Your task to perform on an android device: add a contact in the contacts app Image 0: 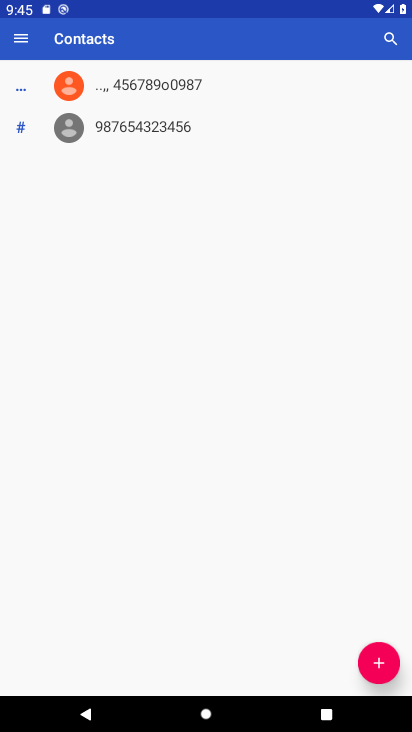
Step 0: press home button
Your task to perform on an android device: add a contact in the contacts app Image 1: 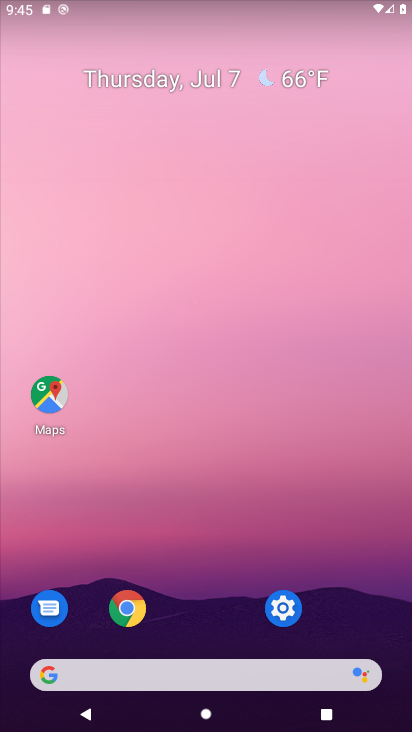
Step 1: drag from (226, 671) to (191, 90)
Your task to perform on an android device: add a contact in the contacts app Image 2: 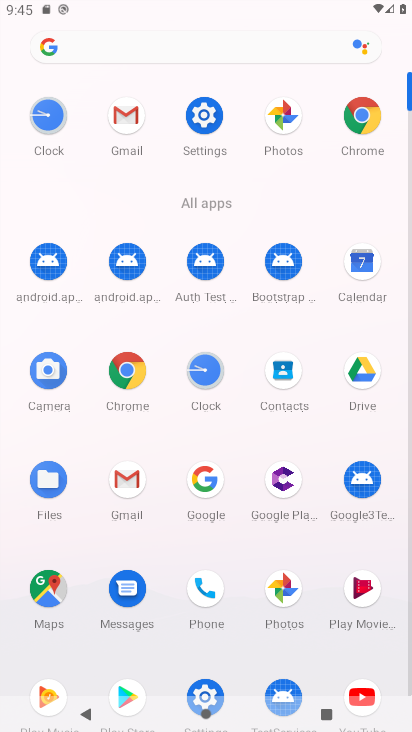
Step 2: click (200, 598)
Your task to perform on an android device: add a contact in the contacts app Image 3: 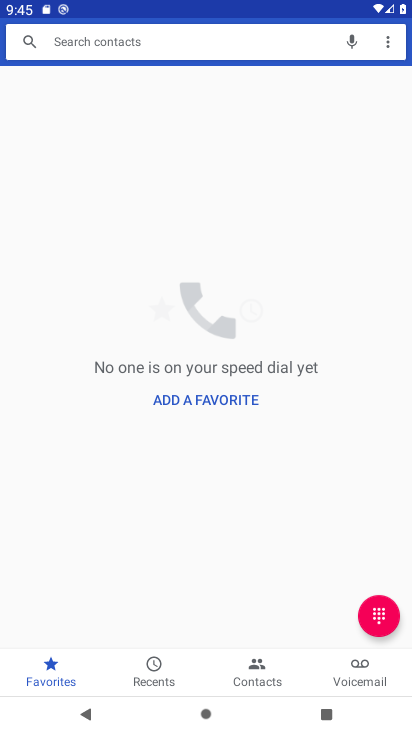
Step 3: click (273, 666)
Your task to perform on an android device: add a contact in the contacts app Image 4: 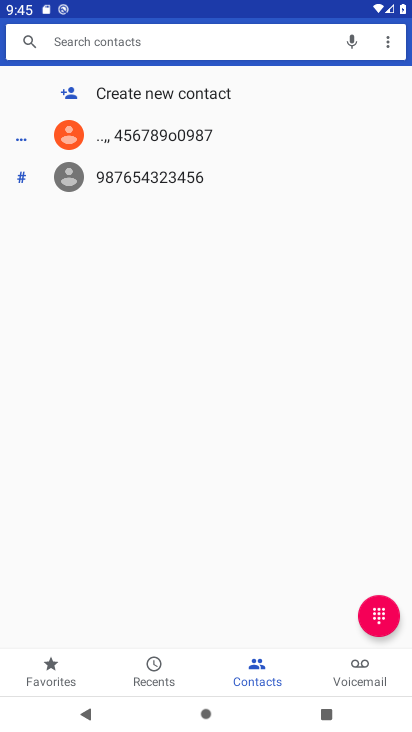
Step 4: click (112, 94)
Your task to perform on an android device: add a contact in the contacts app Image 5: 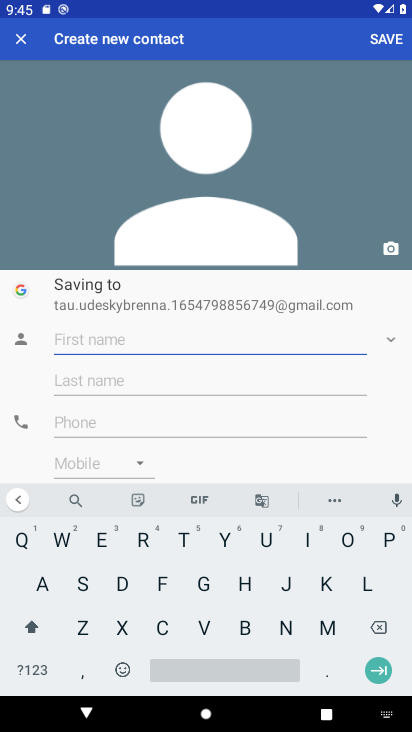
Step 5: click (186, 555)
Your task to perform on an android device: add a contact in the contacts app Image 6: 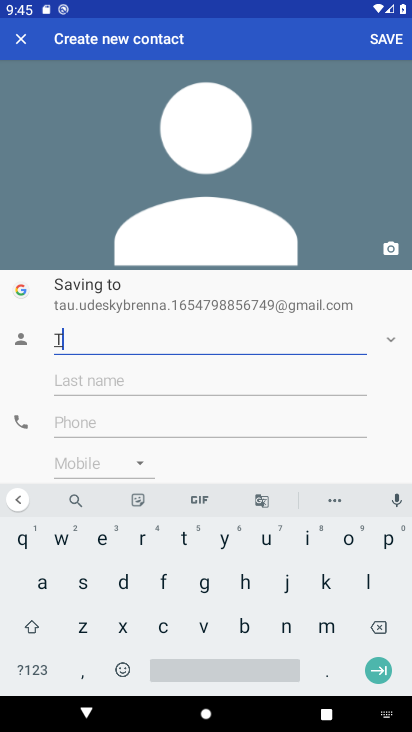
Step 6: click (155, 599)
Your task to perform on an android device: add a contact in the contacts app Image 7: 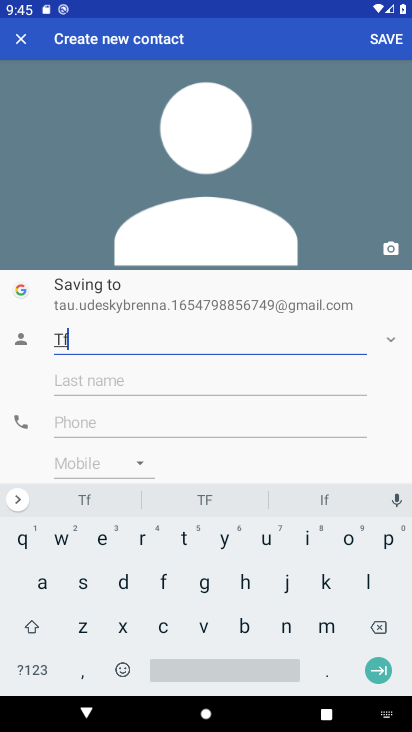
Step 7: click (113, 584)
Your task to perform on an android device: add a contact in the contacts app Image 8: 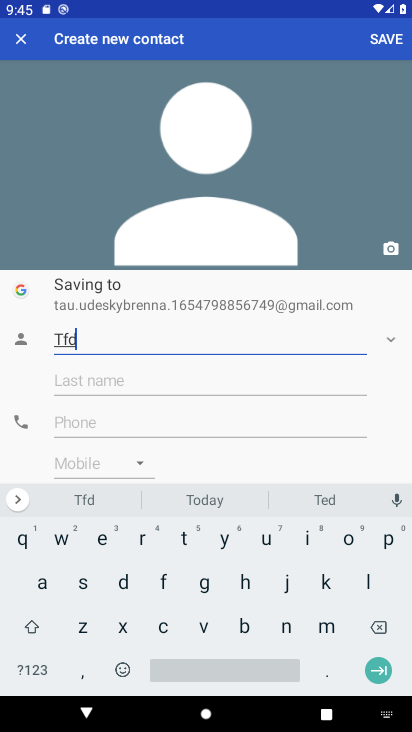
Step 8: click (84, 417)
Your task to perform on an android device: add a contact in the contacts app Image 9: 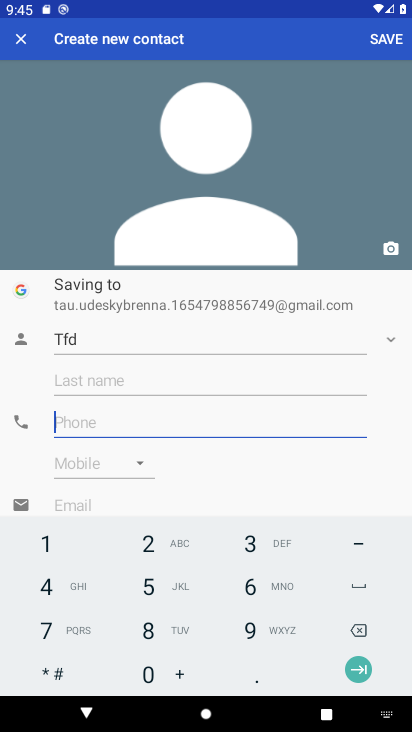
Step 9: click (154, 577)
Your task to perform on an android device: add a contact in the contacts app Image 10: 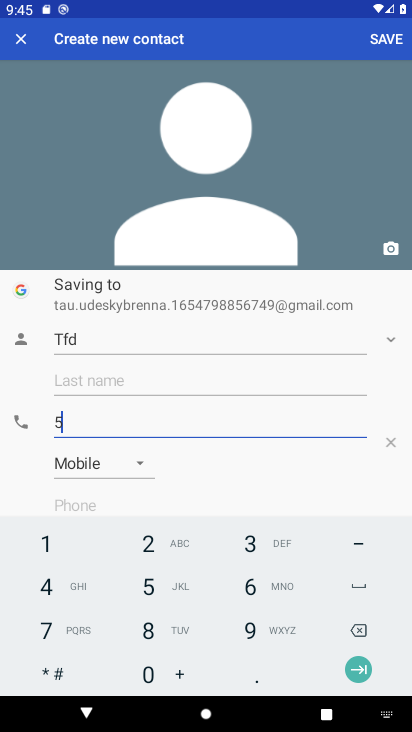
Step 10: click (51, 616)
Your task to perform on an android device: add a contact in the contacts app Image 11: 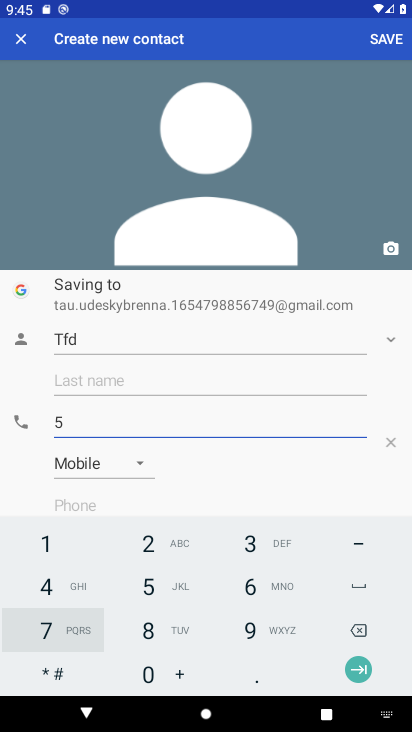
Step 11: click (58, 599)
Your task to perform on an android device: add a contact in the contacts app Image 12: 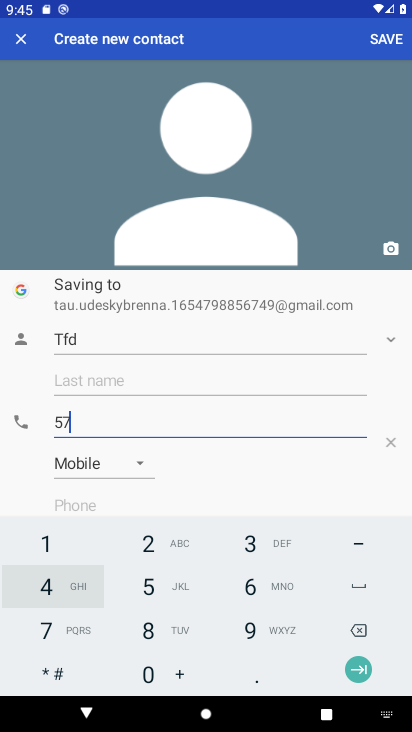
Step 12: click (173, 566)
Your task to perform on an android device: add a contact in the contacts app Image 13: 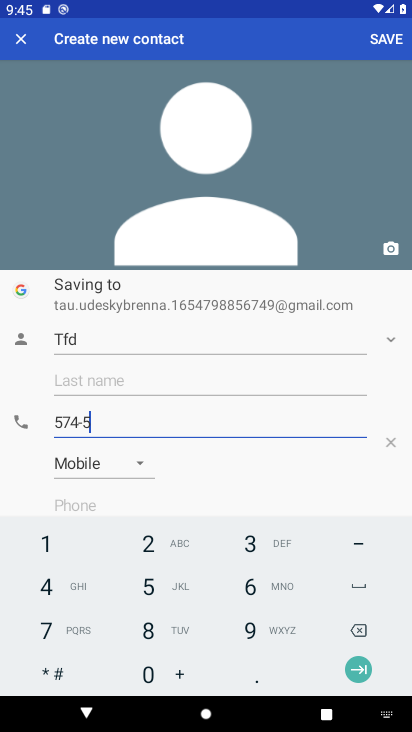
Step 13: click (144, 591)
Your task to perform on an android device: add a contact in the contacts app Image 14: 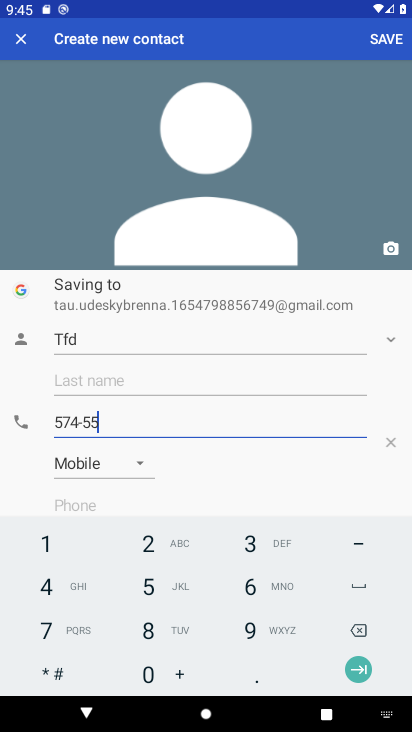
Step 14: click (148, 622)
Your task to perform on an android device: add a contact in the contacts app Image 15: 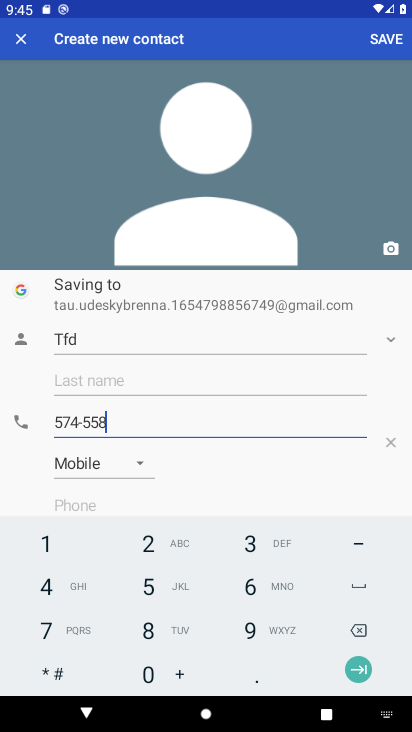
Step 15: click (215, 596)
Your task to perform on an android device: add a contact in the contacts app Image 16: 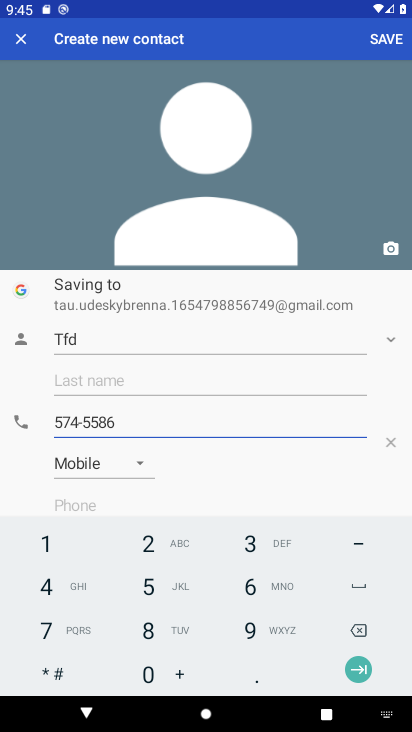
Step 16: click (380, 40)
Your task to perform on an android device: add a contact in the contacts app Image 17: 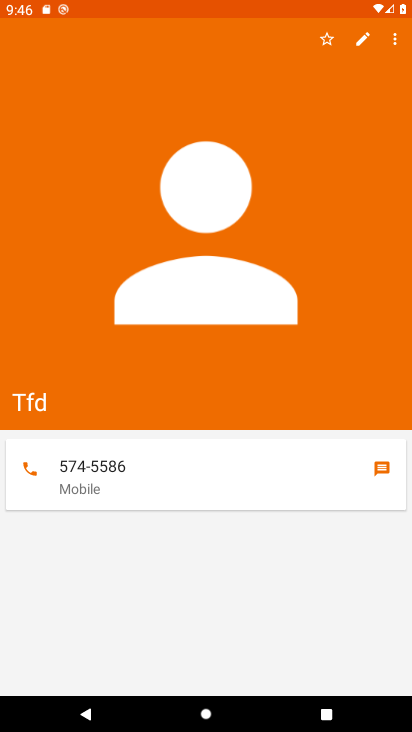
Step 17: task complete